Your task to perform on an android device: Toggle the flashlight Image 0: 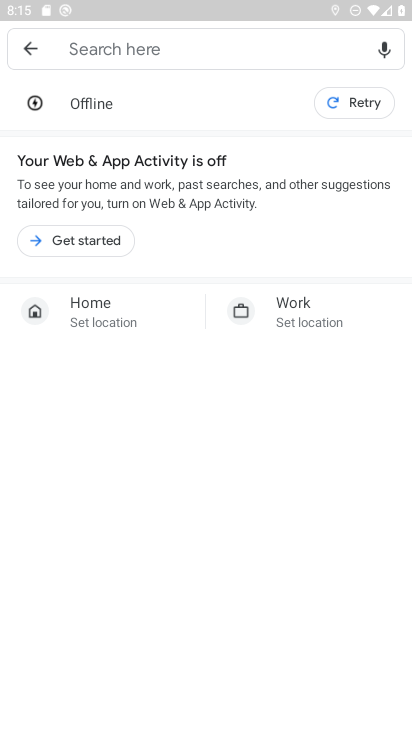
Step 0: press home button
Your task to perform on an android device: Toggle the flashlight Image 1: 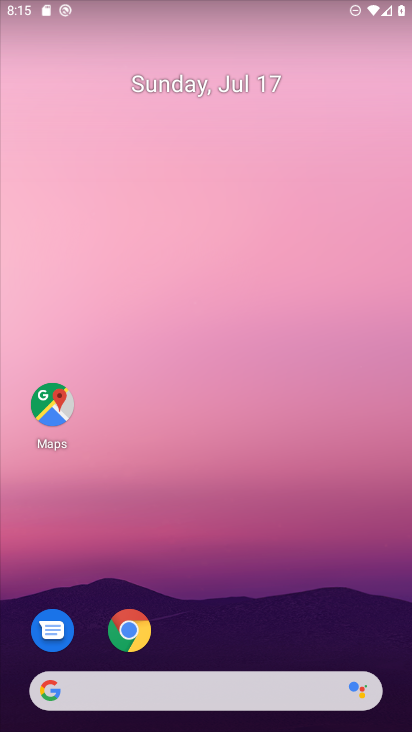
Step 1: drag from (372, 649) to (268, 71)
Your task to perform on an android device: Toggle the flashlight Image 2: 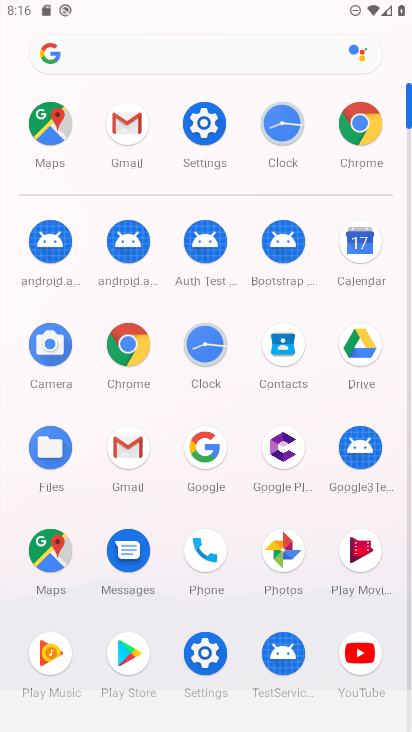
Step 2: click (207, 665)
Your task to perform on an android device: Toggle the flashlight Image 3: 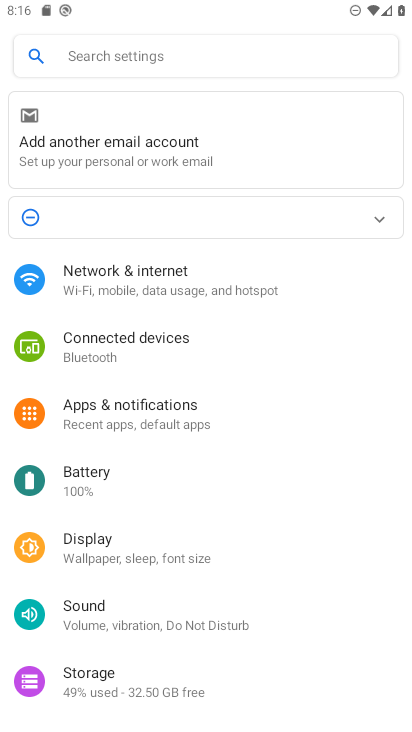
Step 3: task complete